Your task to perform on an android device: When is my next meeting? Image 0: 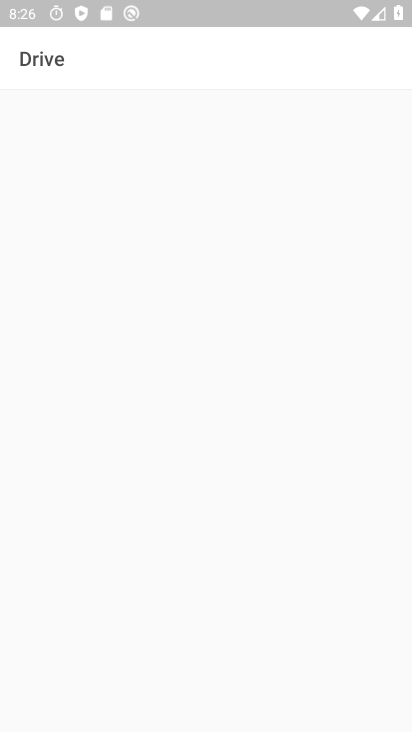
Step 0: press back button
Your task to perform on an android device: When is my next meeting? Image 1: 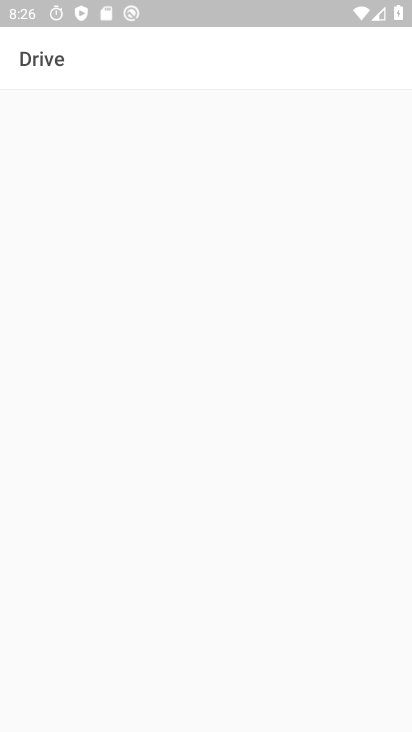
Step 1: press back button
Your task to perform on an android device: When is my next meeting? Image 2: 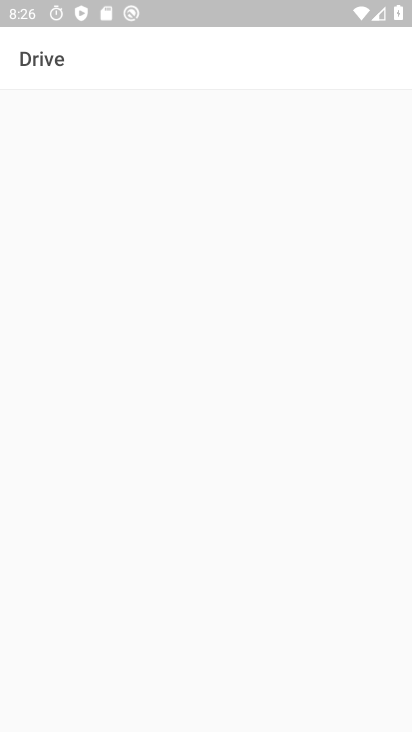
Step 2: press home button
Your task to perform on an android device: When is my next meeting? Image 3: 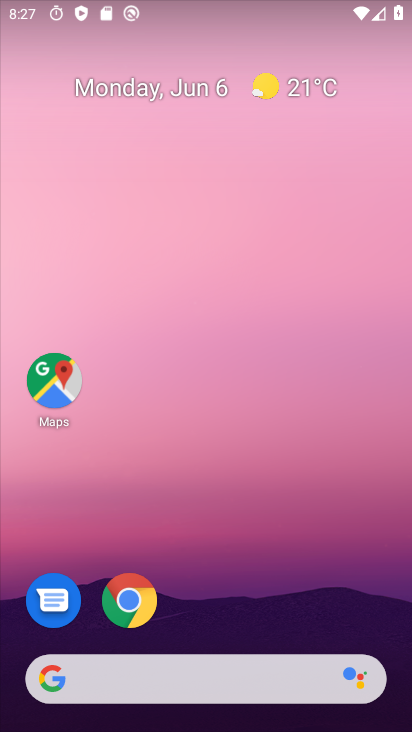
Step 3: drag from (247, 571) to (236, 27)
Your task to perform on an android device: When is my next meeting? Image 4: 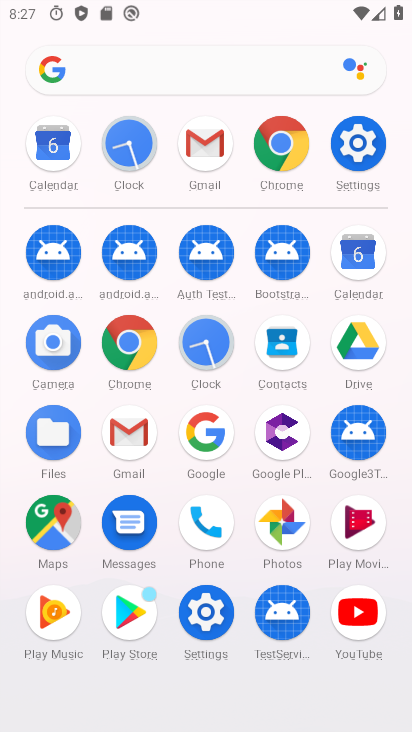
Step 4: drag from (11, 527) to (23, 277)
Your task to perform on an android device: When is my next meeting? Image 5: 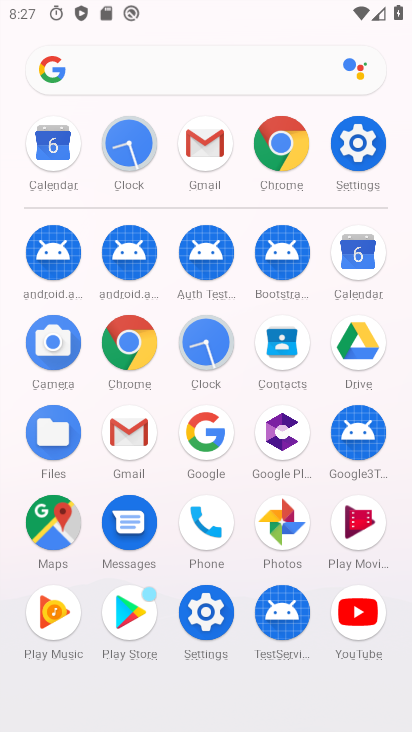
Step 5: click (364, 246)
Your task to perform on an android device: When is my next meeting? Image 6: 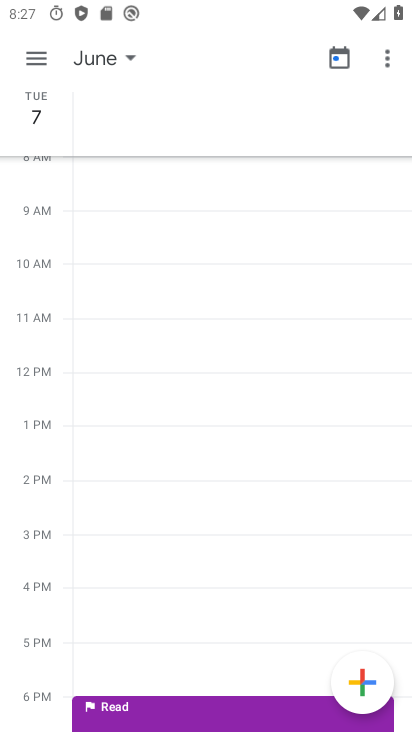
Step 6: click (337, 56)
Your task to perform on an android device: When is my next meeting? Image 7: 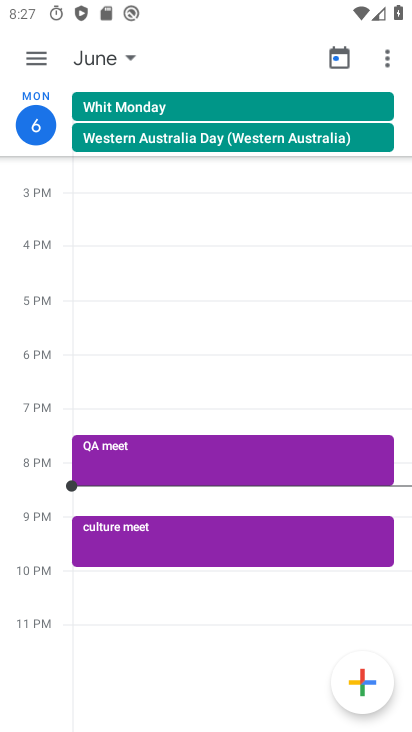
Step 7: click (105, 57)
Your task to perform on an android device: When is my next meeting? Image 8: 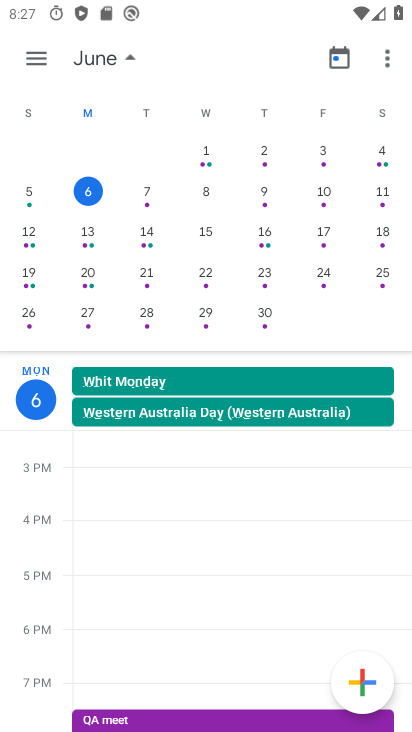
Step 8: click (159, 171)
Your task to perform on an android device: When is my next meeting? Image 9: 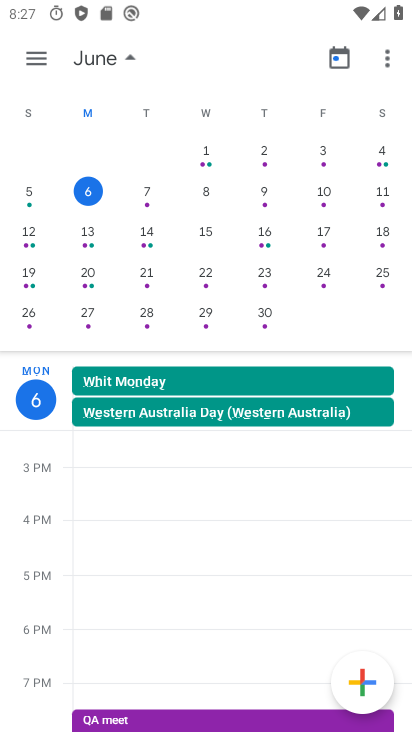
Step 9: click (151, 185)
Your task to perform on an android device: When is my next meeting? Image 10: 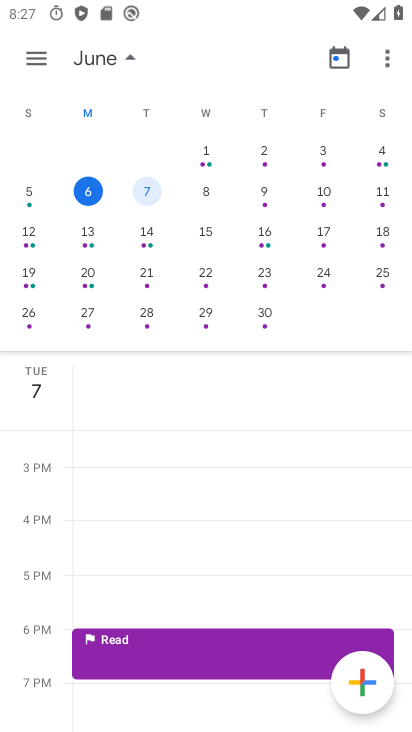
Step 10: click (83, 192)
Your task to perform on an android device: When is my next meeting? Image 11: 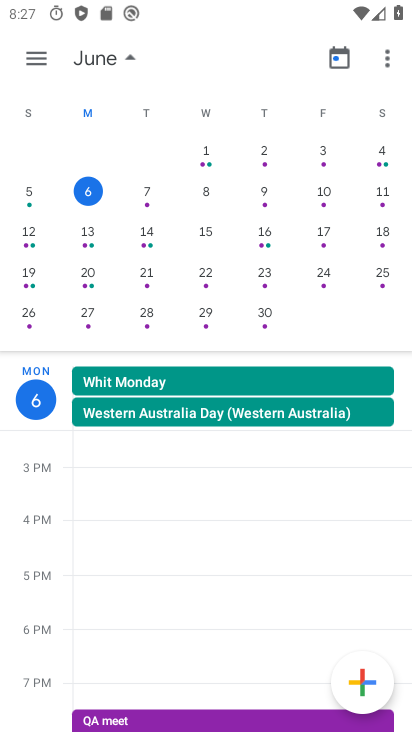
Step 11: click (41, 47)
Your task to perform on an android device: When is my next meeting? Image 12: 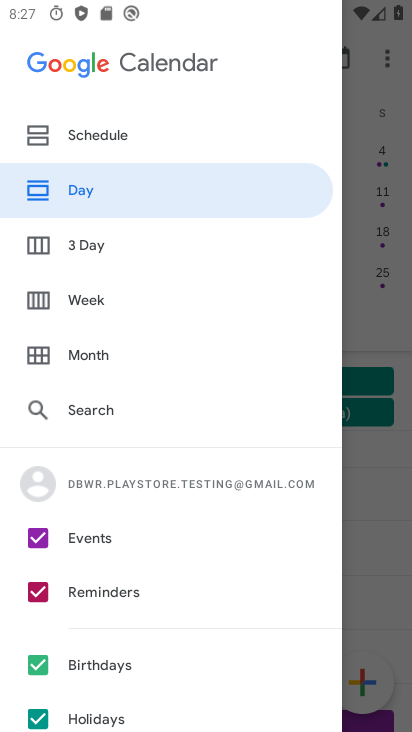
Step 12: click (141, 136)
Your task to perform on an android device: When is my next meeting? Image 13: 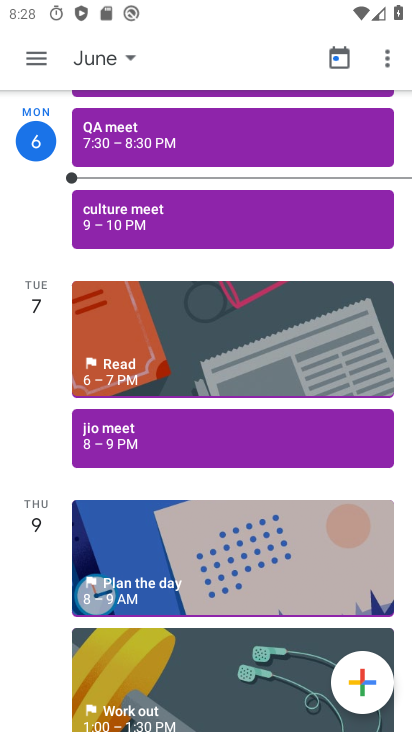
Step 13: task complete